Your task to perform on an android device: Open Google Maps and go to "Timeline" Image 0: 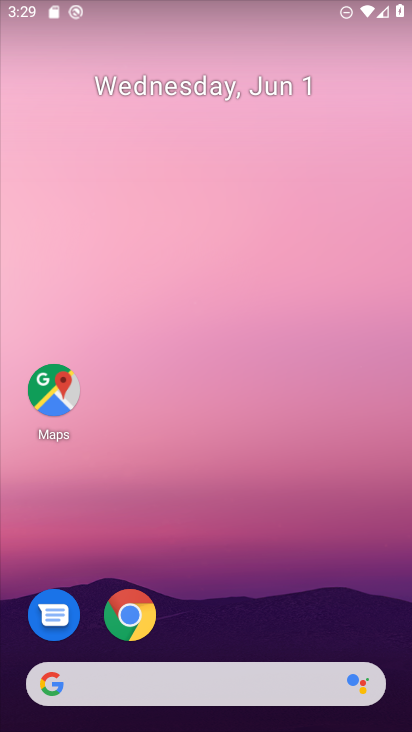
Step 0: press home button
Your task to perform on an android device: Open Google Maps and go to "Timeline" Image 1: 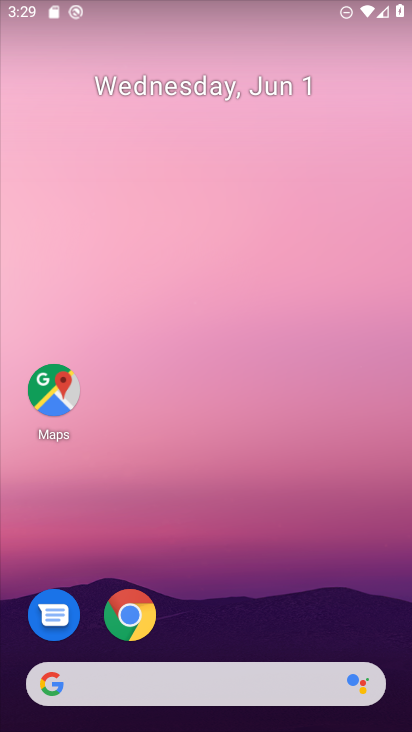
Step 1: click (53, 390)
Your task to perform on an android device: Open Google Maps and go to "Timeline" Image 2: 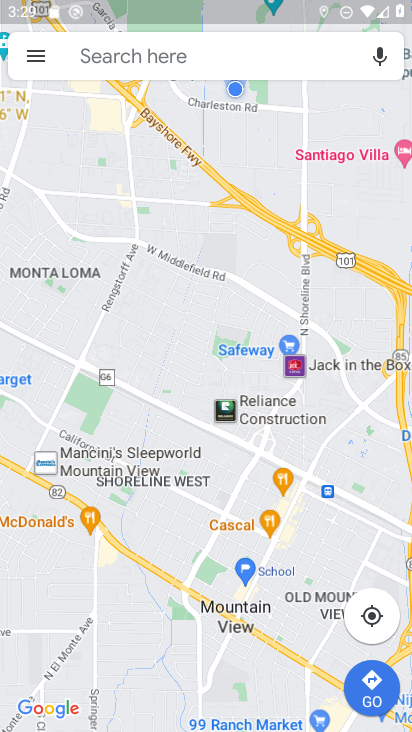
Step 2: click (39, 53)
Your task to perform on an android device: Open Google Maps and go to "Timeline" Image 3: 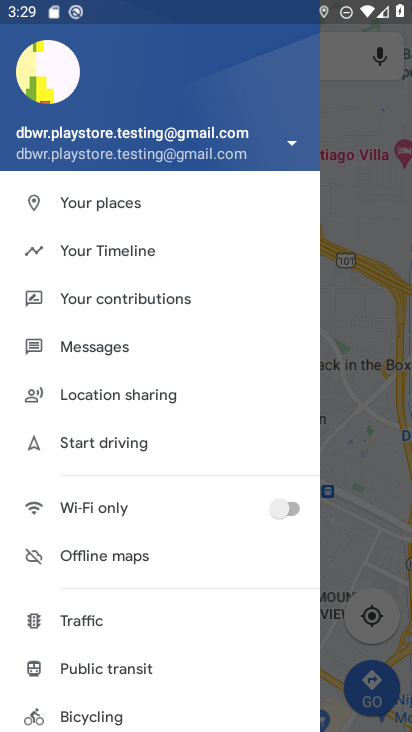
Step 3: click (153, 245)
Your task to perform on an android device: Open Google Maps and go to "Timeline" Image 4: 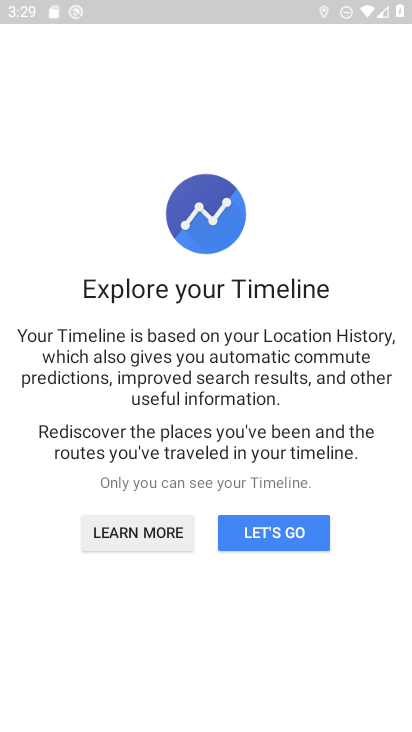
Step 4: click (281, 530)
Your task to perform on an android device: Open Google Maps and go to "Timeline" Image 5: 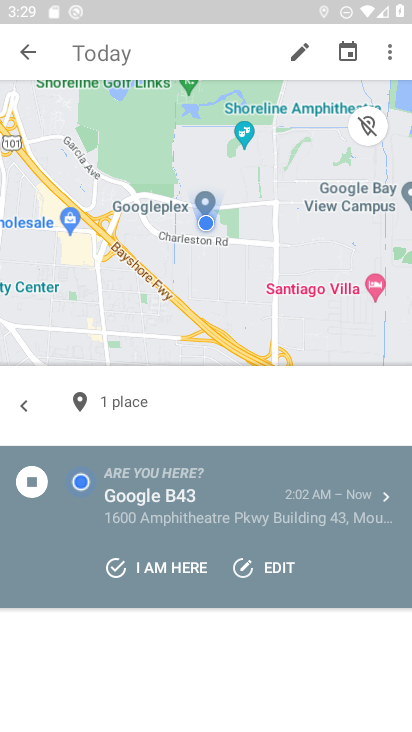
Step 5: task complete